Your task to perform on an android device: Find coffee shops on Maps Image 0: 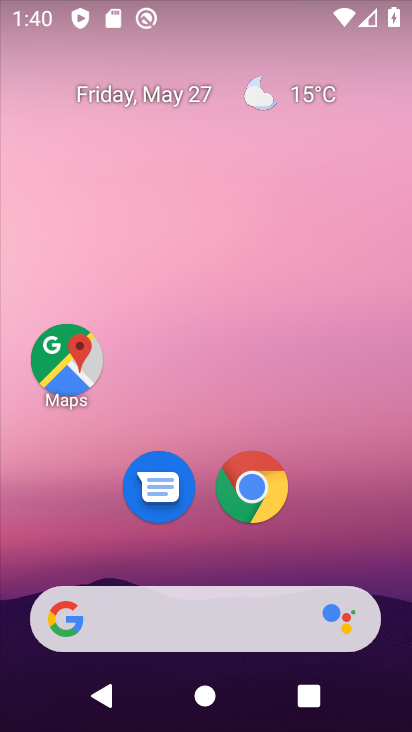
Step 0: drag from (366, 493) to (106, 114)
Your task to perform on an android device: Find coffee shops on Maps Image 1: 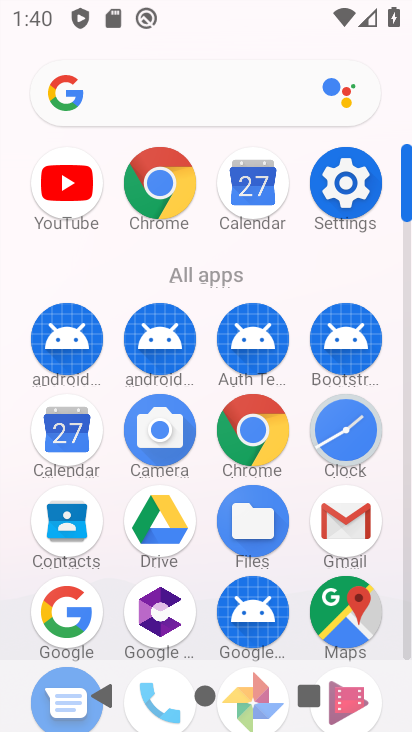
Step 1: click (344, 619)
Your task to perform on an android device: Find coffee shops on Maps Image 2: 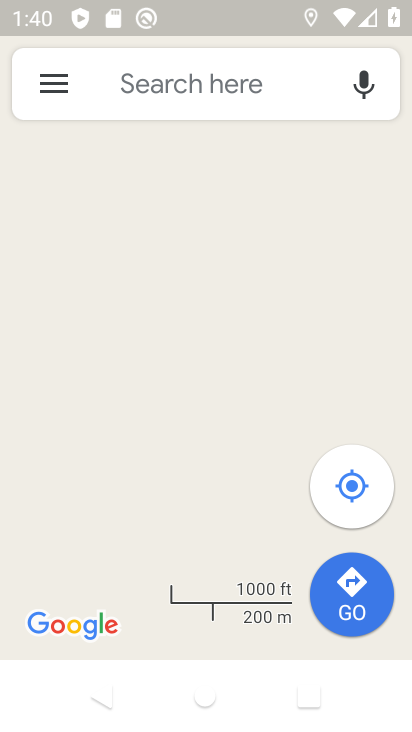
Step 2: click (129, 82)
Your task to perform on an android device: Find coffee shops on Maps Image 3: 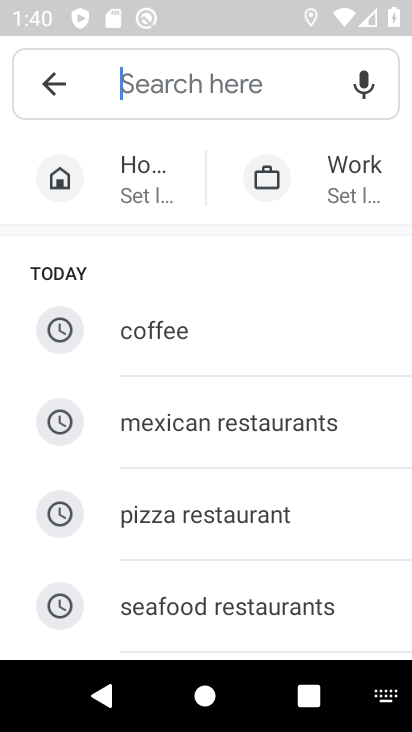
Step 3: type "coffee shops"
Your task to perform on an android device: Find coffee shops on Maps Image 4: 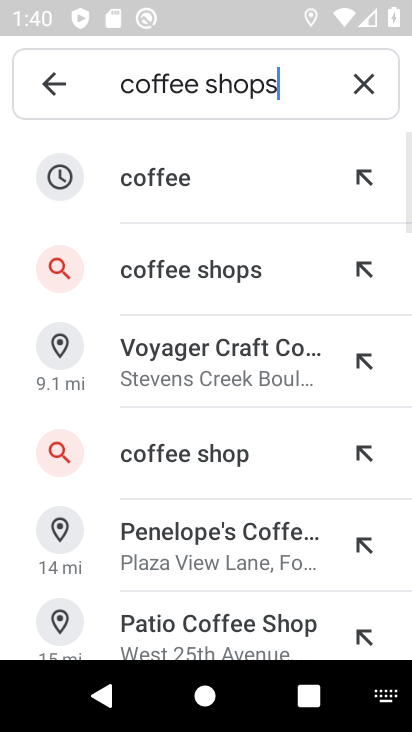
Step 4: click (292, 278)
Your task to perform on an android device: Find coffee shops on Maps Image 5: 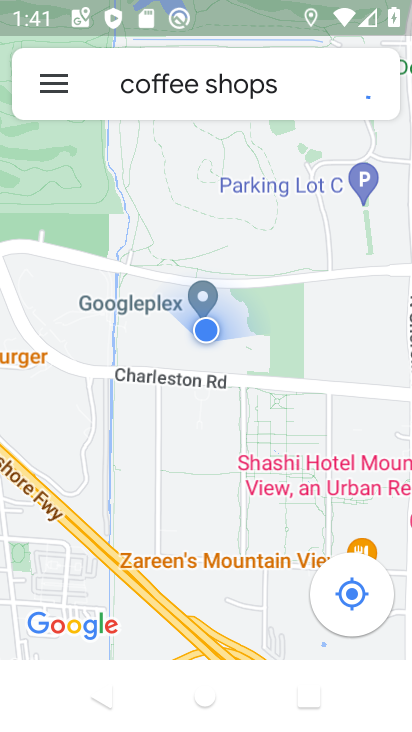
Step 5: task complete